Your task to perform on an android device: Go to CNN.com Image 0: 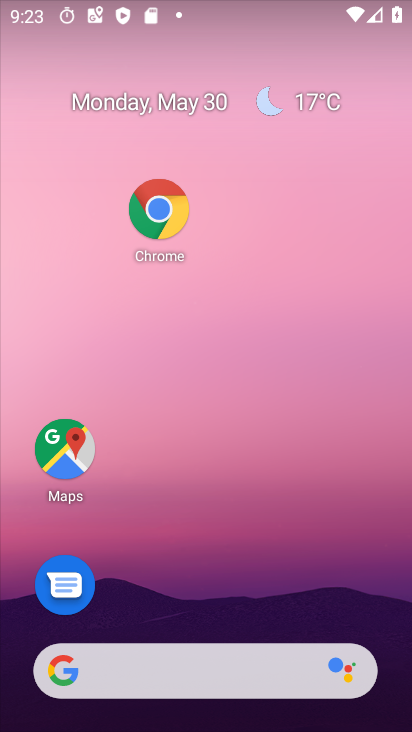
Step 0: click (236, 97)
Your task to perform on an android device: Go to CNN.com Image 1: 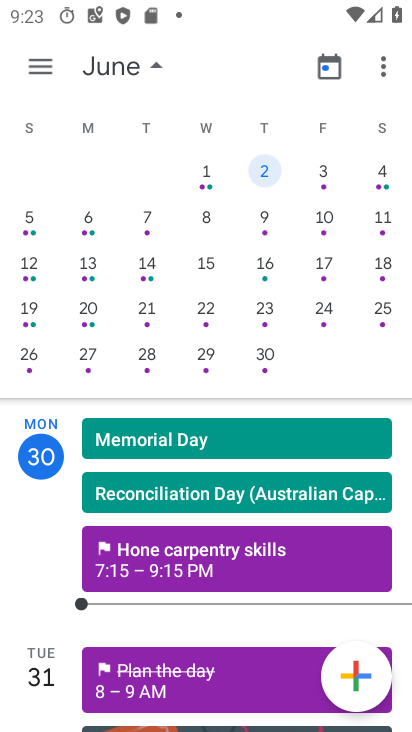
Step 1: press home button
Your task to perform on an android device: Go to CNN.com Image 2: 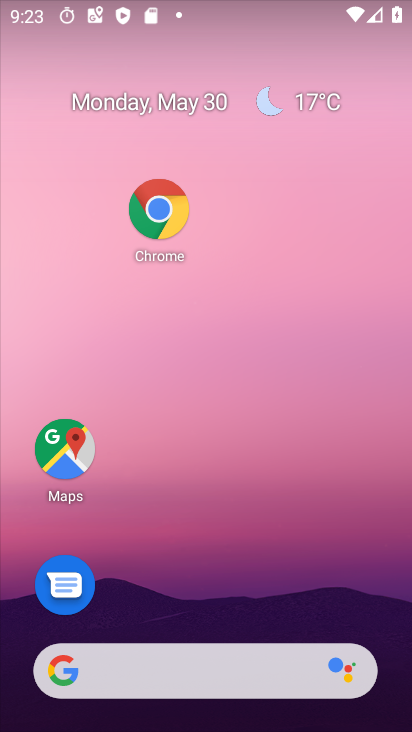
Step 2: click (337, 94)
Your task to perform on an android device: Go to CNN.com Image 3: 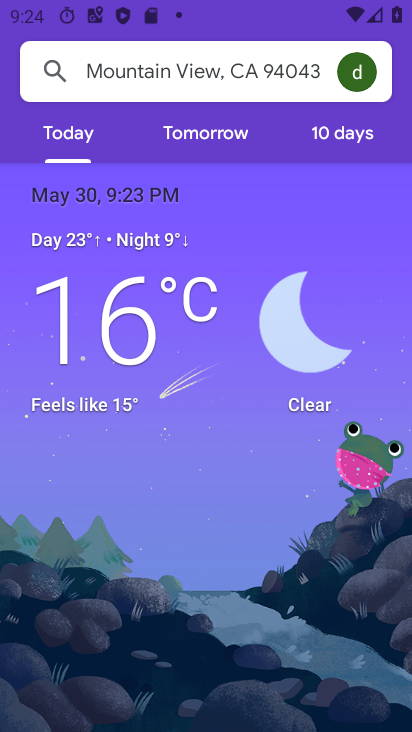
Step 3: press home button
Your task to perform on an android device: Go to CNN.com Image 4: 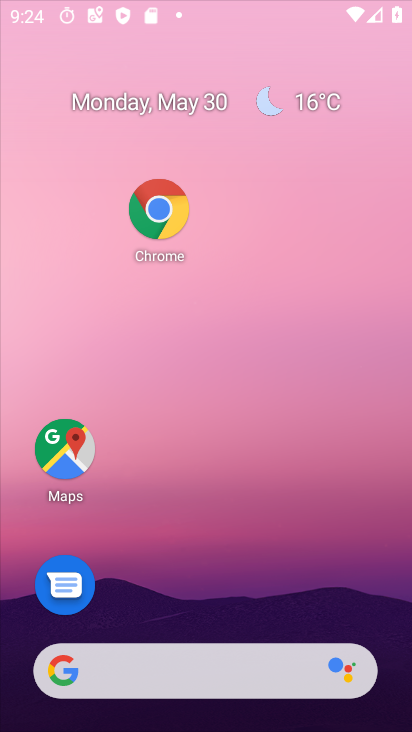
Step 4: drag from (221, 6) to (281, 0)
Your task to perform on an android device: Go to CNN.com Image 5: 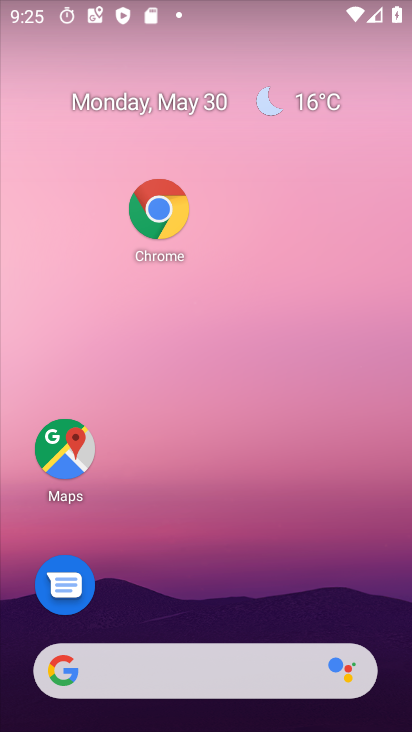
Step 5: click (294, 2)
Your task to perform on an android device: Go to CNN.com Image 6: 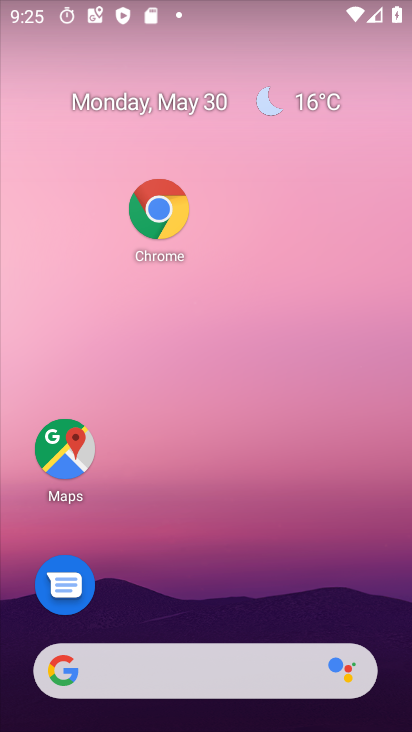
Step 6: drag from (204, 595) to (257, 37)
Your task to perform on an android device: Go to CNN.com Image 7: 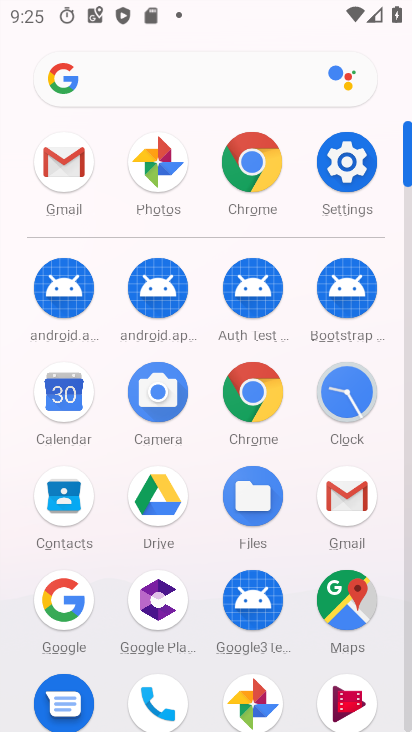
Step 7: click (185, 67)
Your task to perform on an android device: Go to CNN.com Image 8: 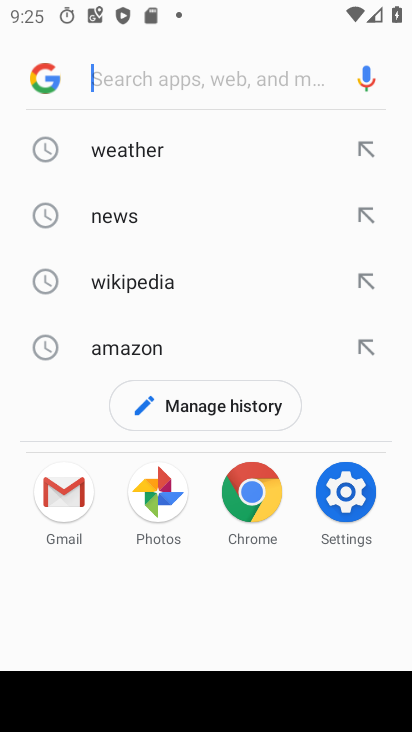
Step 8: type "CNN.com"
Your task to perform on an android device: Go to CNN.com Image 9: 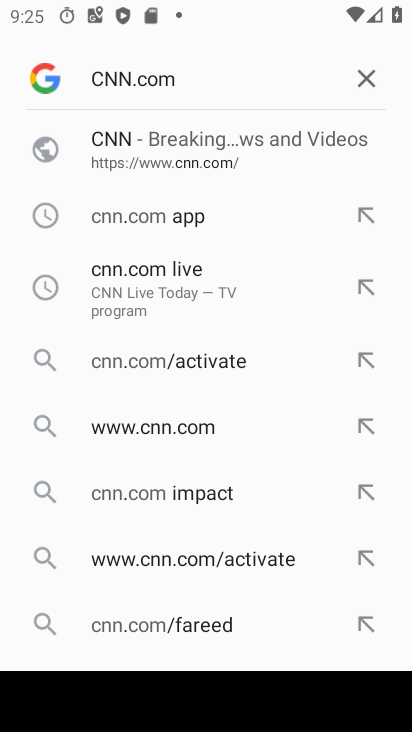
Step 9: click (143, 146)
Your task to perform on an android device: Go to CNN.com Image 10: 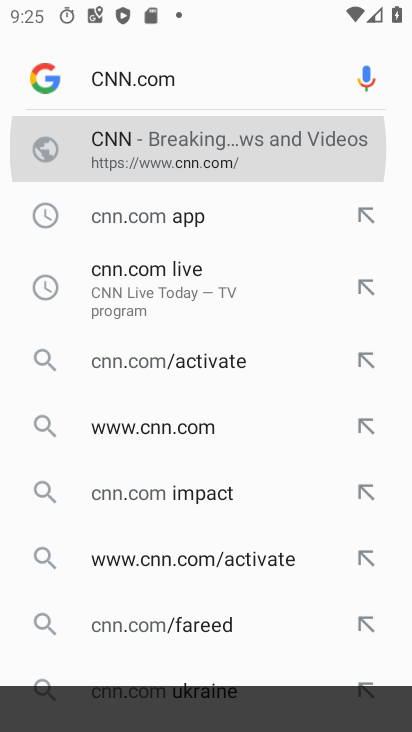
Step 10: task complete